Your task to perform on an android device: clear history in the chrome app Image 0: 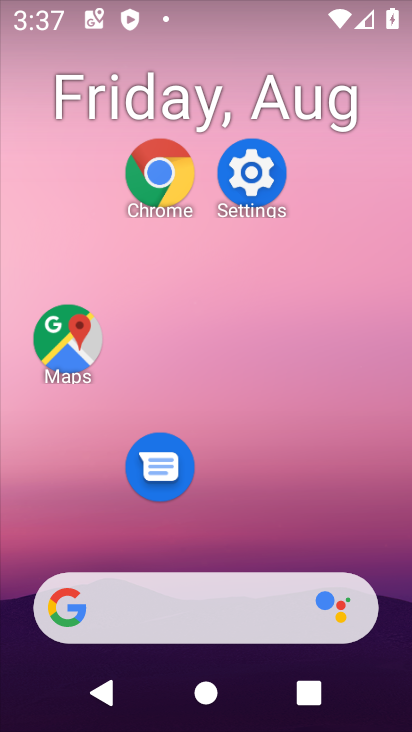
Step 0: press home button
Your task to perform on an android device: clear history in the chrome app Image 1: 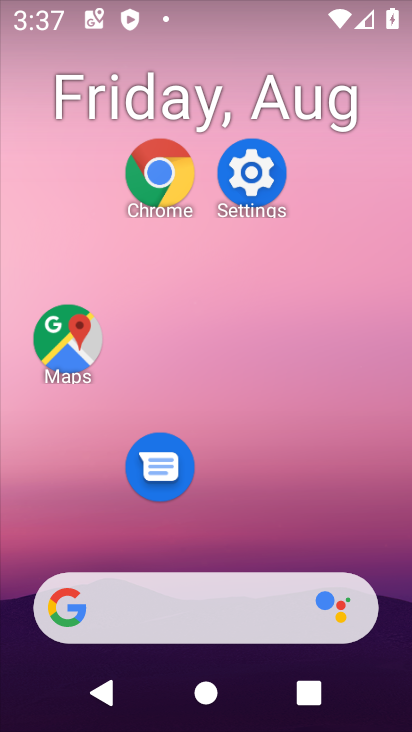
Step 1: drag from (296, 529) to (221, 11)
Your task to perform on an android device: clear history in the chrome app Image 2: 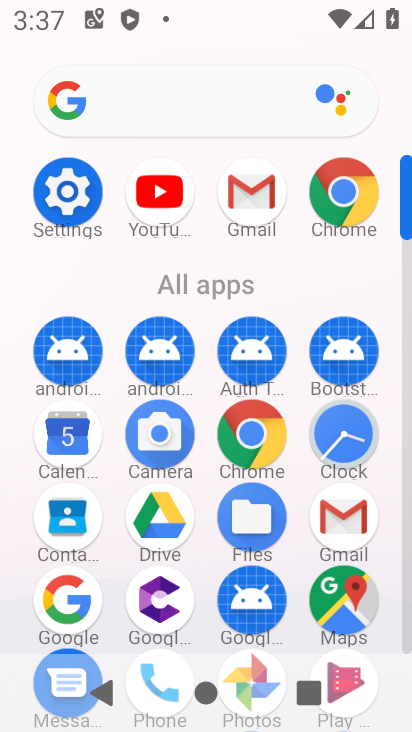
Step 2: click (251, 428)
Your task to perform on an android device: clear history in the chrome app Image 3: 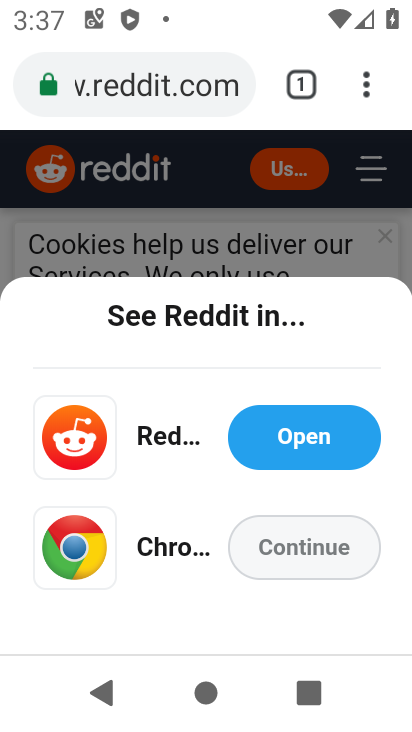
Step 3: drag from (365, 66) to (123, 483)
Your task to perform on an android device: clear history in the chrome app Image 4: 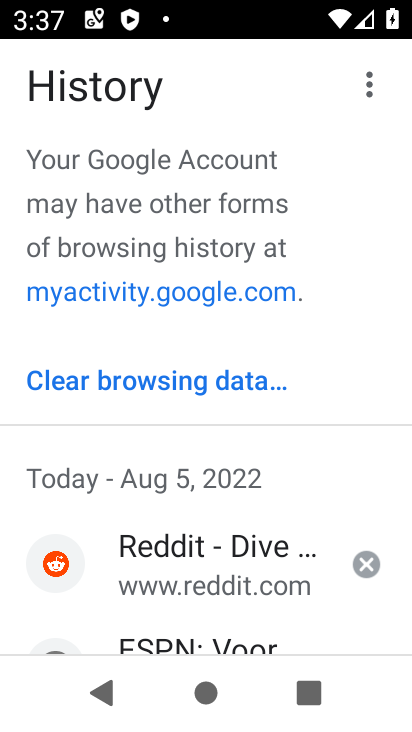
Step 4: drag from (287, 583) to (246, 274)
Your task to perform on an android device: clear history in the chrome app Image 5: 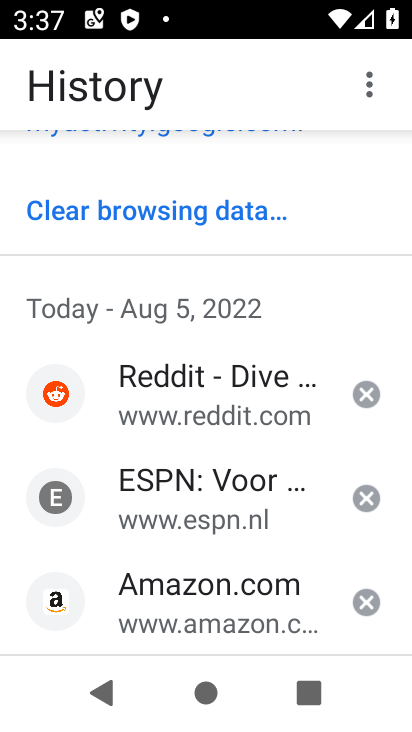
Step 5: click (66, 394)
Your task to perform on an android device: clear history in the chrome app Image 6: 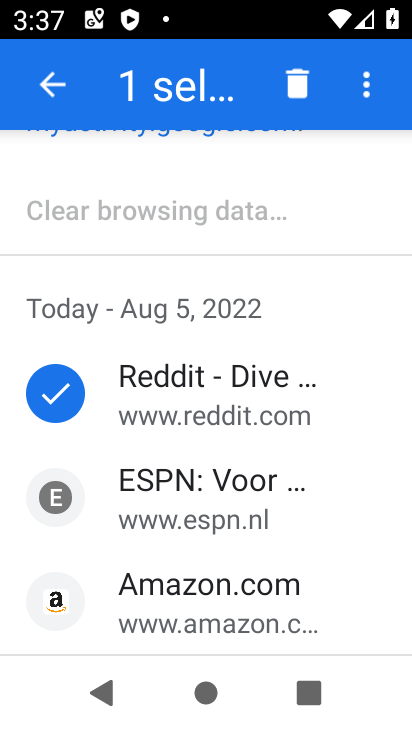
Step 6: click (49, 502)
Your task to perform on an android device: clear history in the chrome app Image 7: 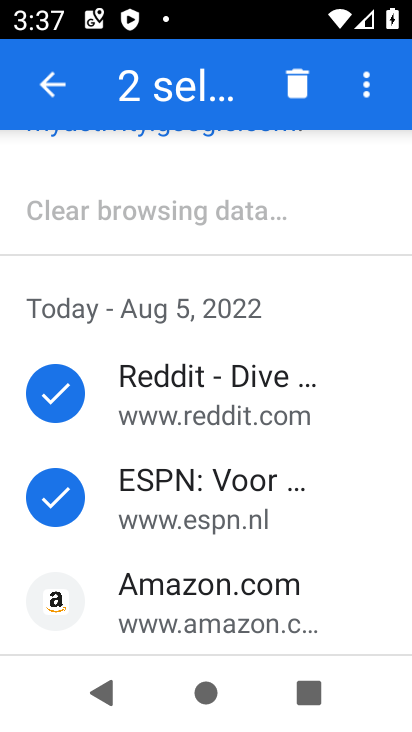
Step 7: click (64, 595)
Your task to perform on an android device: clear history in the chrome app Image 8: 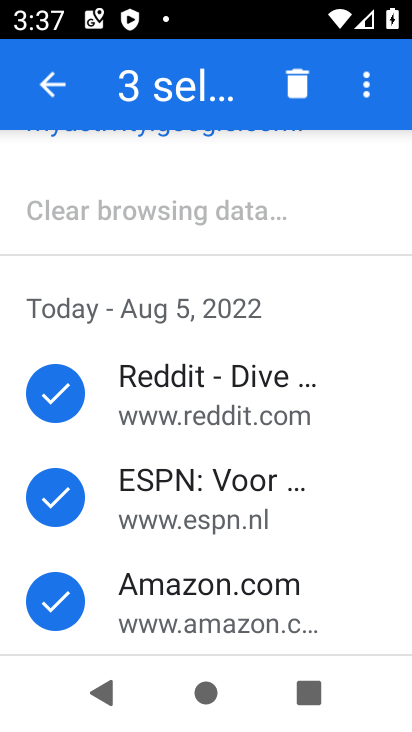
Step 8: drag from (256, 587) to (221, 246)
Your task to perform on an android device: clear history in the chrome app Image 9: 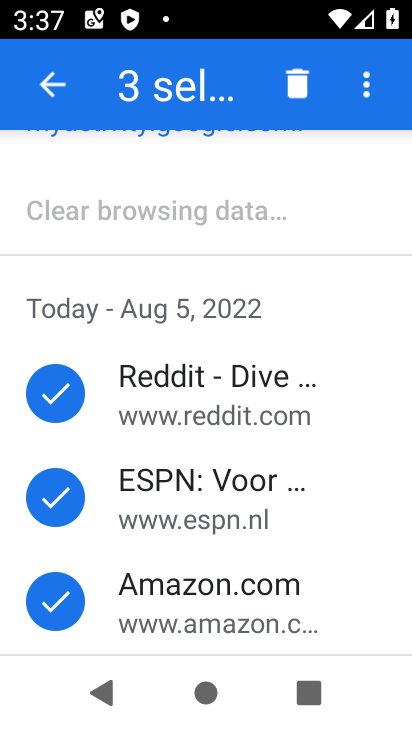
Step 9: click (285, 64)
Your task to perform on an android device: clear history in the chrome app Image 10: 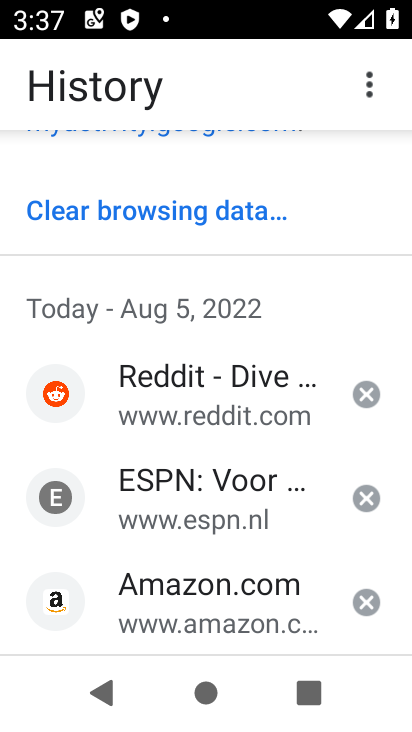
Step 10: click (71, 390)
Your task to perform on an android device: clear history in the chrome app Image 11: 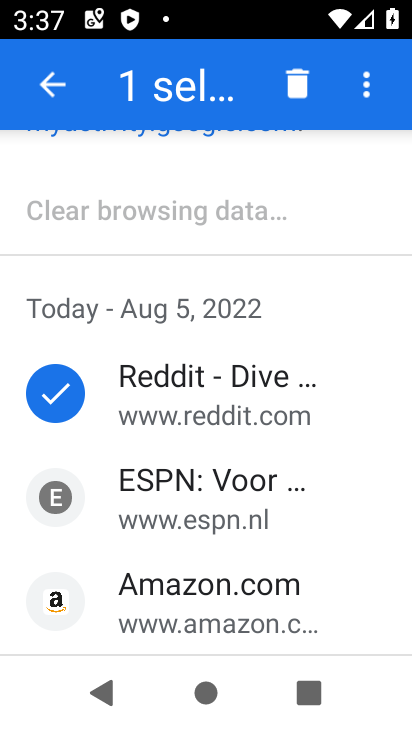
Step 11: click (57, 497)
Your task to perform on an android device: clear history in the chrome app Image 12: 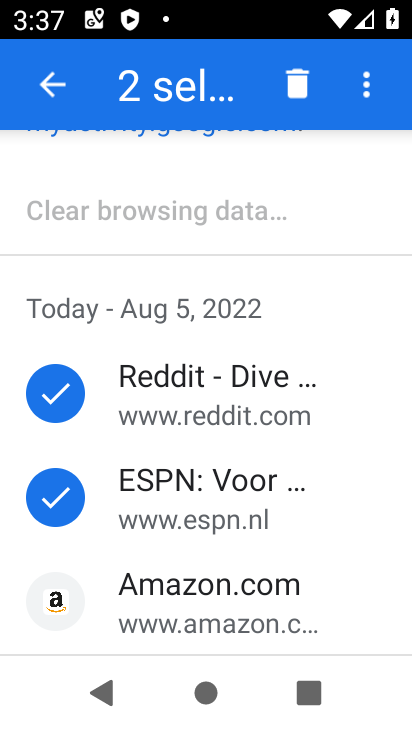
Step 12: click (52, 593)
Your task to perform on an android device: clear history in the chrome app Image 13: 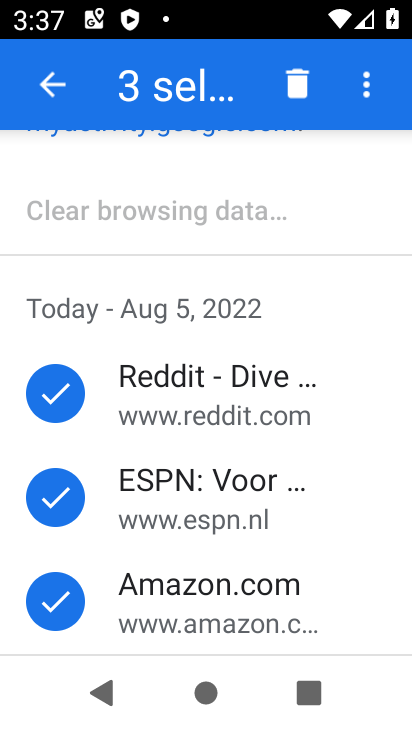
Step 13: click (306, 87)
Your task to perform on an android device: clear history in the chrome app Image 14: 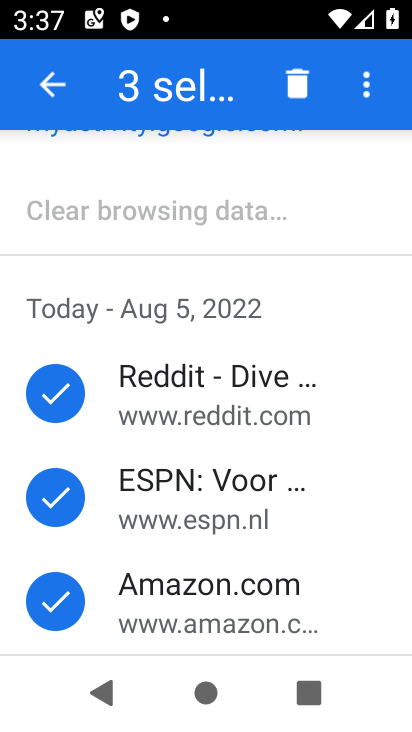
Step 14: click (291, 81)
Your task to perform on an android device: clear history in the chrome app Image 15: 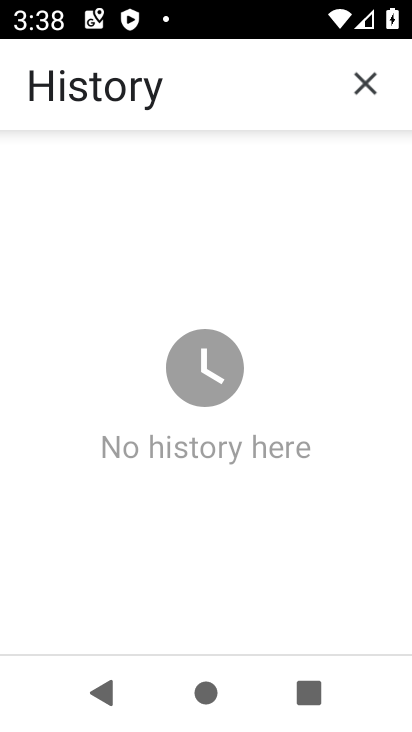
Step 15: task complete